Your task to perform on an android device: Open location settings Image 0: 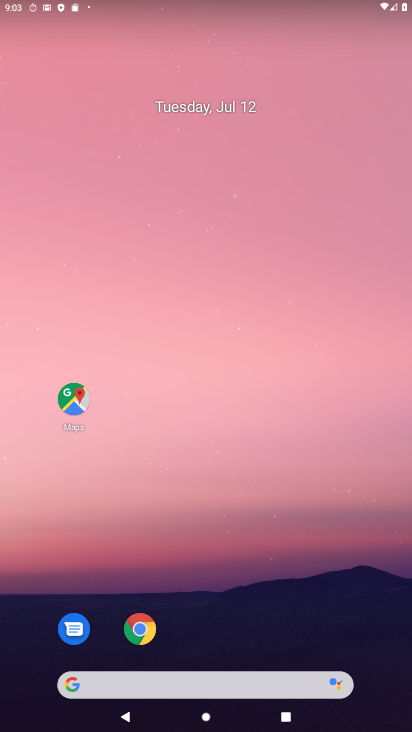
Step 0: drag from (223, 581) to (161, 96)
Your task to perform on an android device: Open location settings Image 1: 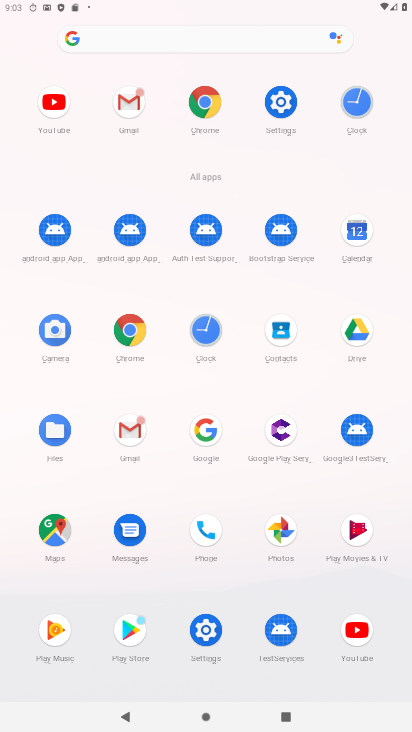
Step 1: click (287, 109)
Your task to perform on an android device: Open location settings Image 2: 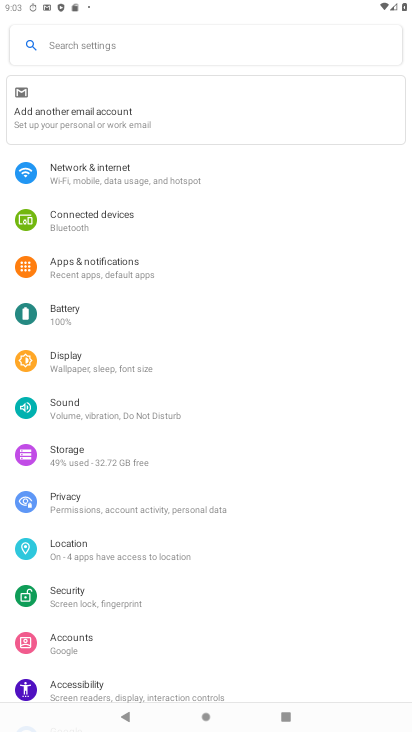
Step 2: click (75, 545)
Your task to perform on an android device: Open location settings Image 3: 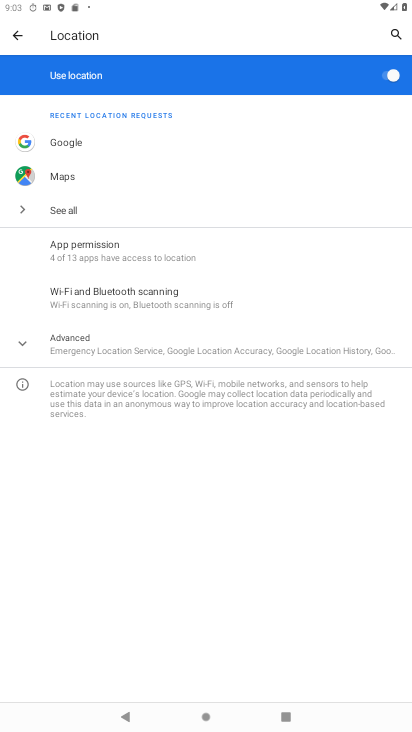
Step 3: click (101, 348)
Your task to perform on an android device: Open location settings Image 4: 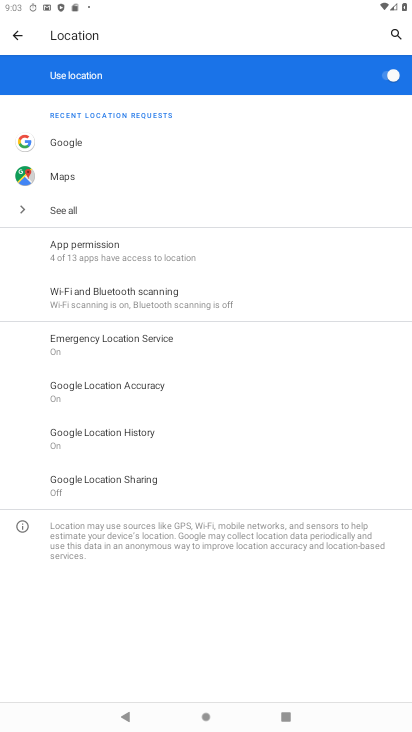
Step 4: task complete